Your task to perform on an android device: turn off location Image 0: 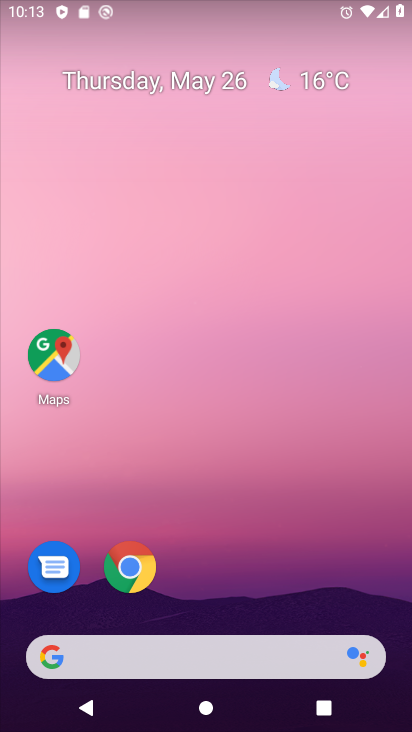
Step 0: drag from (387, 679) to (301, 127)
Your task to perform on an android device: turn off location Image 1: 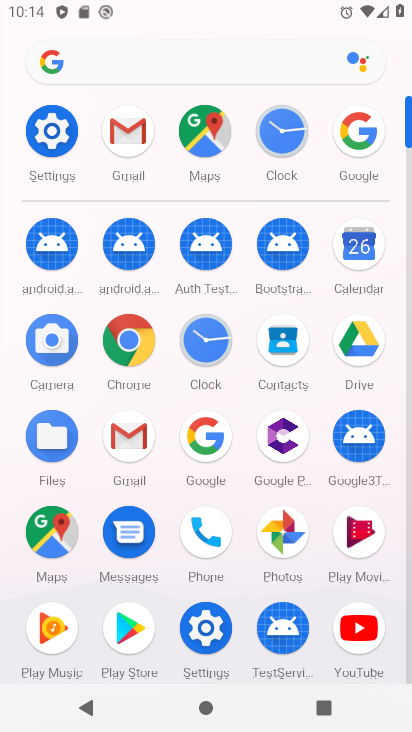
Step 1: click (22, 137)
Your task to perform on an android device: turn off location Image 2: 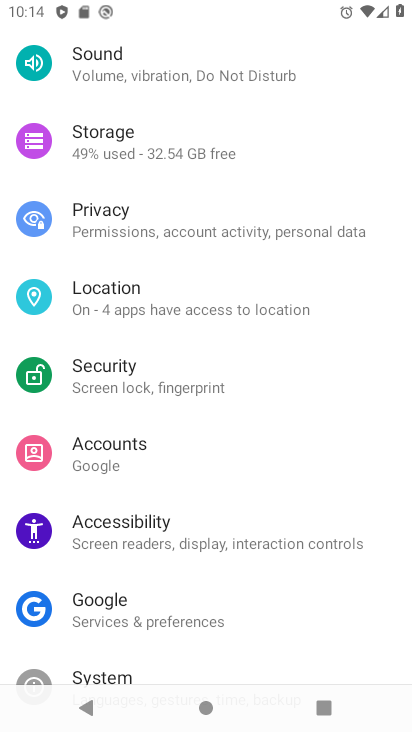
Step 2: click (154, 293)
Your task to perform on an android device: turn off location Image 3: 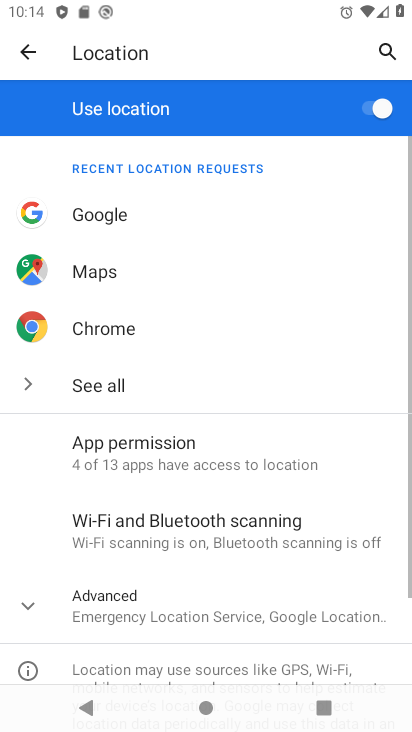
Step 3: click (370, 109)
Your task to perform on an android device: turn off location Image 4: 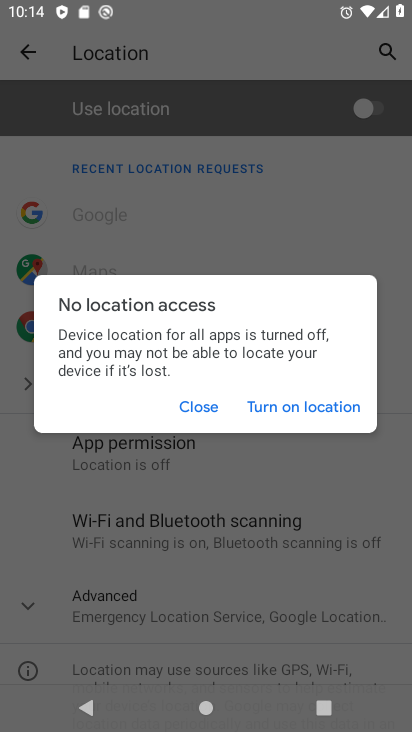
Step 4: click (202, 407)
Your task to perform on an android device: turn off location Image 5: 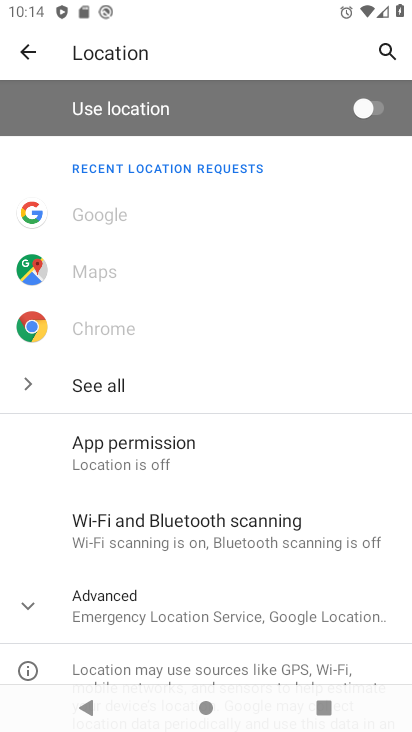
Step 5: task complete